Your task to perform on an android device: Clear the cart on ebay.com. Add "energizer triple a" to the cart on ebay.com, then select checkout. Image 0: 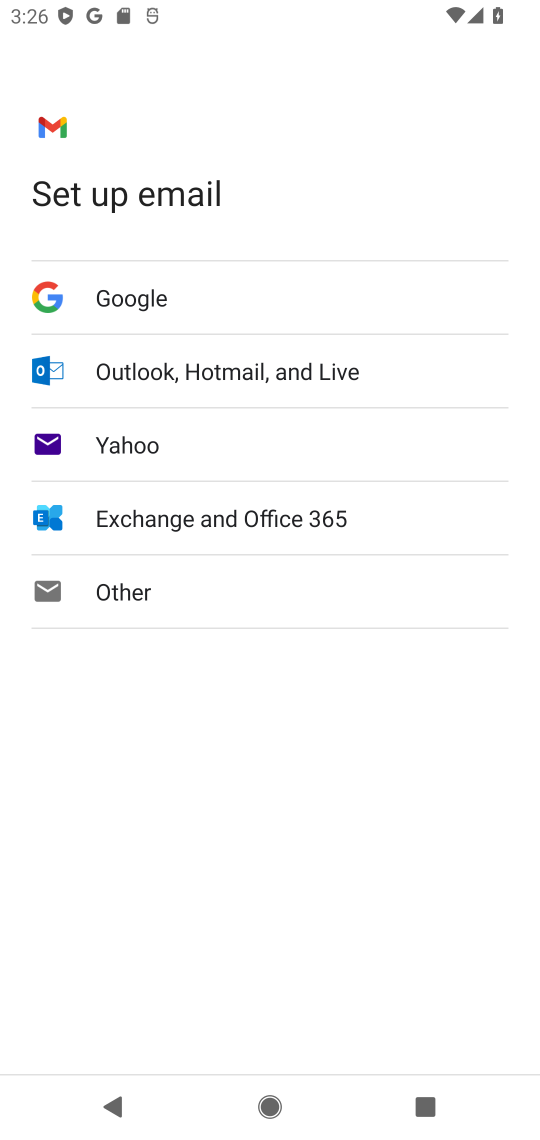
Step 0: press home button
Your task to perform on an android device: Clear the cart on ebay.com. Add "energizer triple a" to the cart on ebay.com, then select checkout. Image 1: 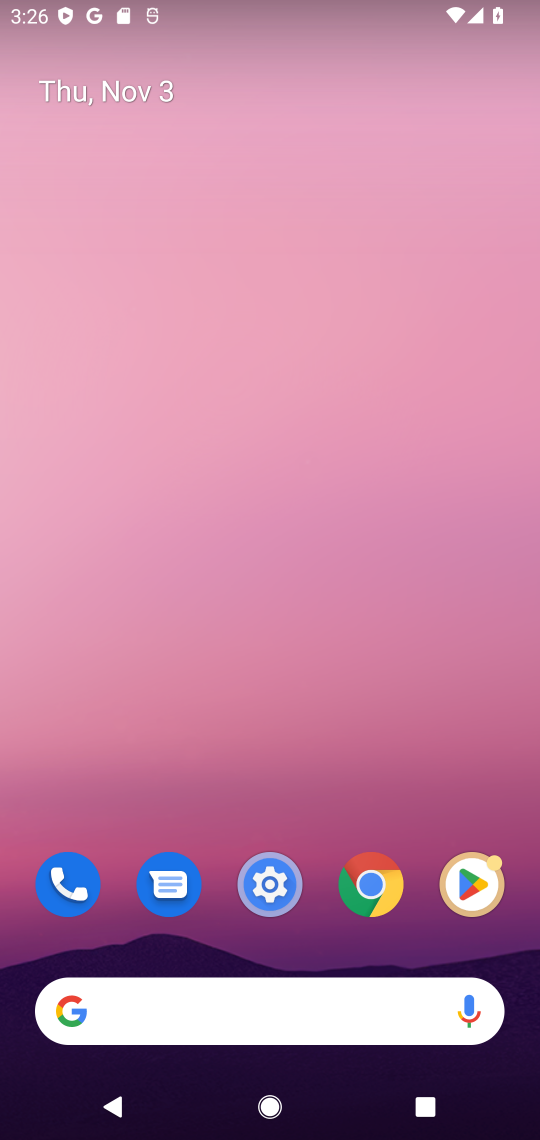
Step 1: click (129, 1004)
Your task to perform on an android device: Clear the cart on ebay.com. Add "energizer triple a" to the cart on ebay.com, then select checkout. Image 2: 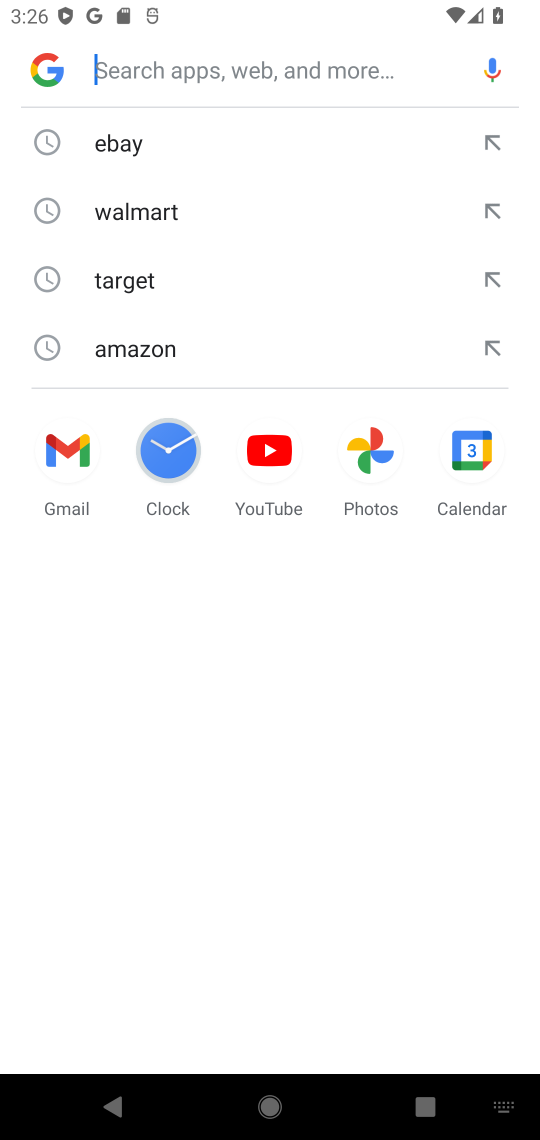
Step 2: type "ebay.com"
Your task to perform on an android device: Clear the cart on ebay.com. Add "energizer triple a" to the cart on ebay.com, then select checkout. Image 3: 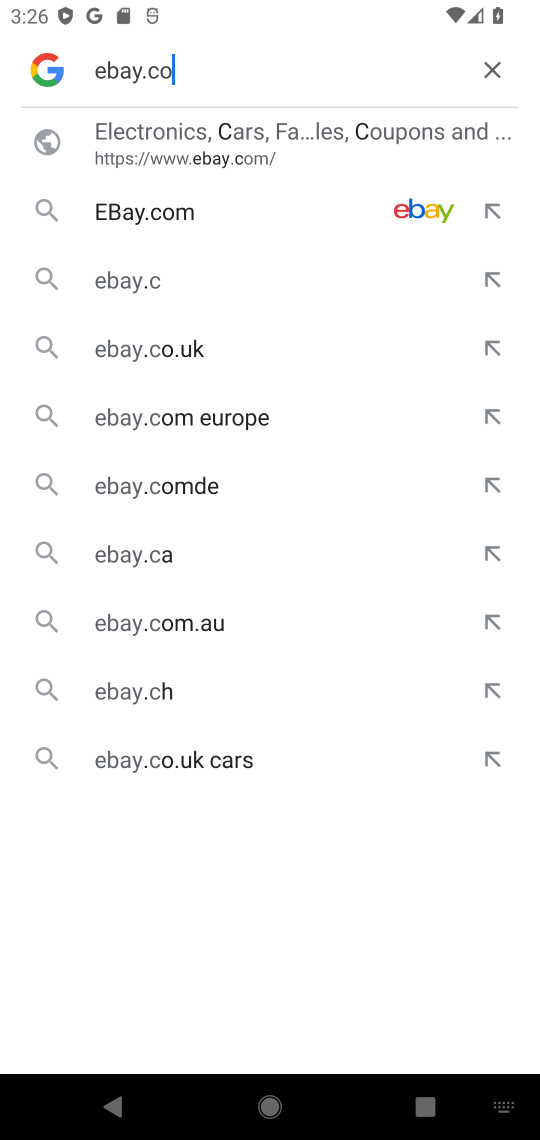
Step 3: press enter
Your task to perform on an android device: Clear the cart on ebay.com. Add "energizer triple a" to the cart on ebay.com, then select checkout. Image 4: 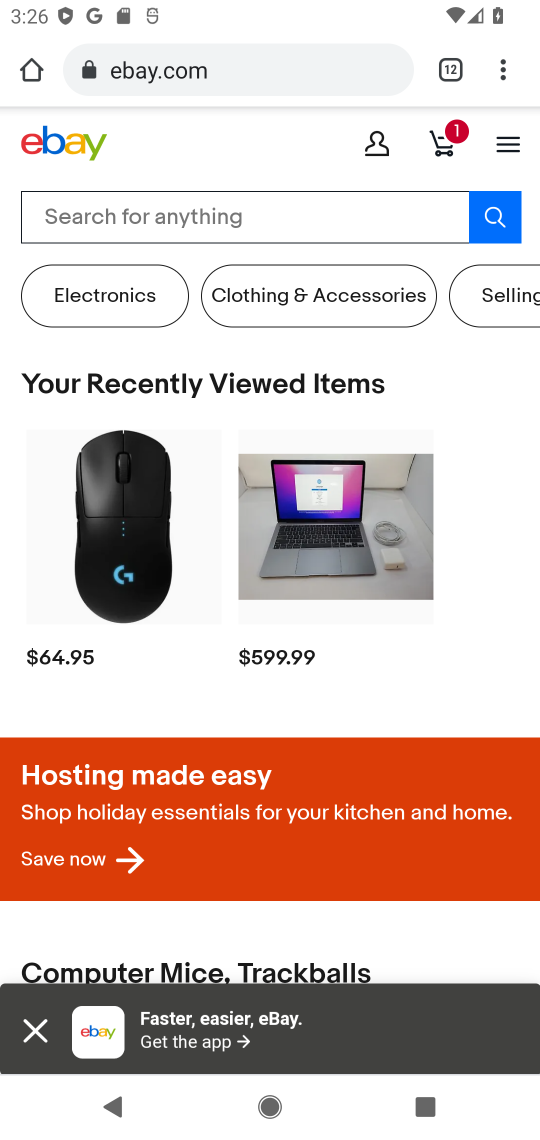
Step 4: click (443, 139)
Your task to perform on an android device: Clear the cart on ebay.com. Add "energizer triple a" to the cart on ebay.com, then select checkout. Image 5: 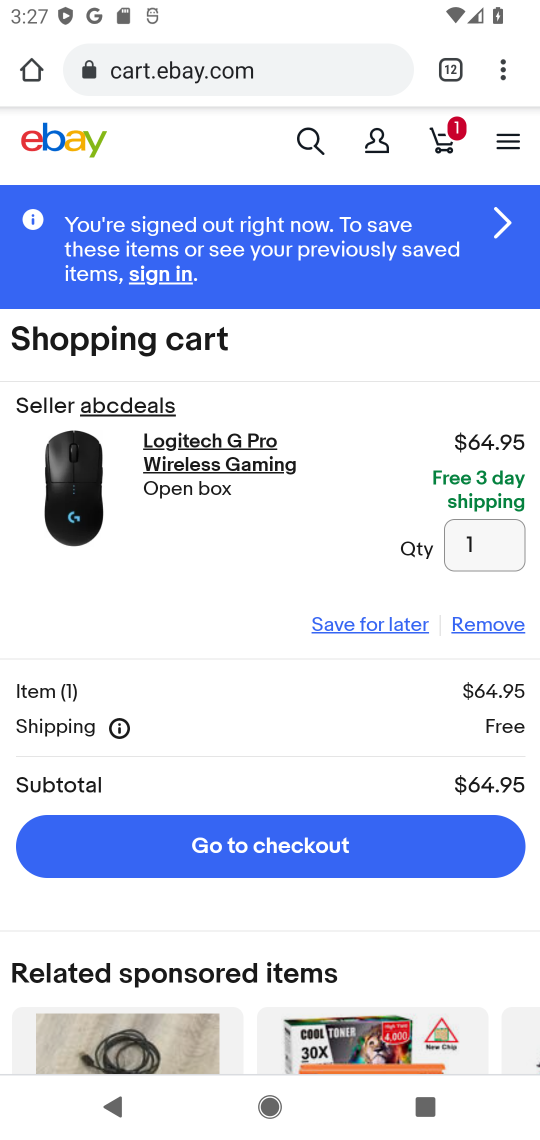
Step 5: click (490, 617)
Your task to perform on an android device: Clear the cart on ebay.com. Add "energizer triple a" to the cart on ebay.com, then select checkout. Image 6: 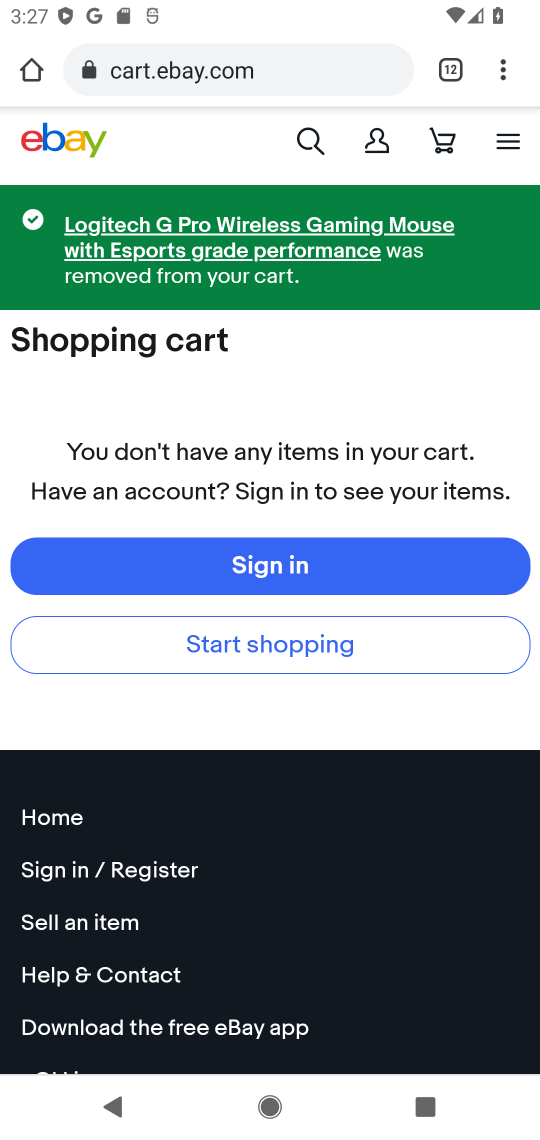
Step 6: click (310, 140)
Your task to perform on an android device: Clear the cart on ebay.com. Add "energizer triple a" to the cart on ebay.com, then select checkout. Image 7: 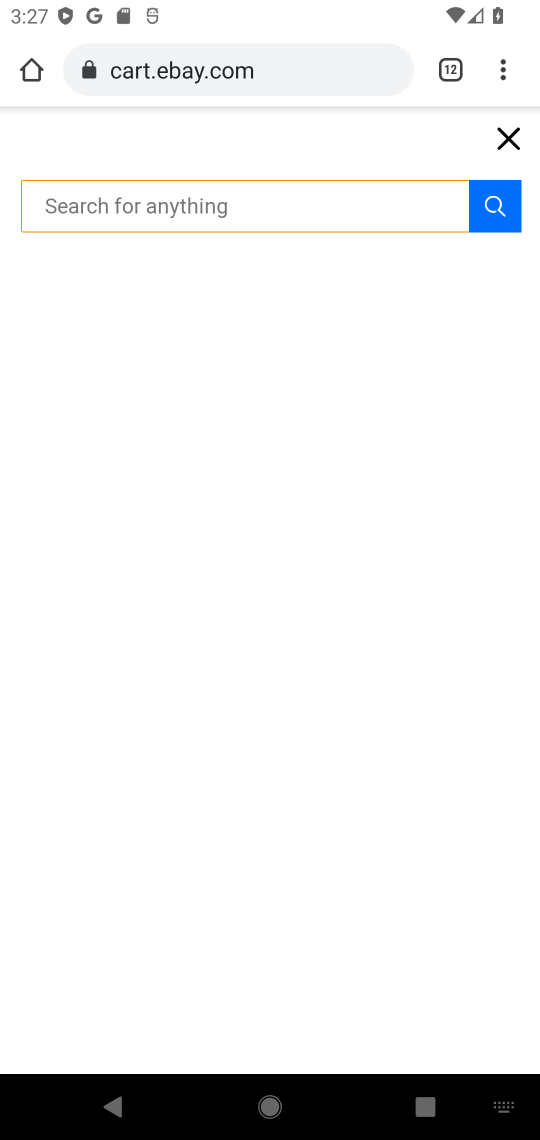
Step 7: type "energizer triple a"
Your task to perform on an android device: Clear the cart on ebay.com. Add "energizer triple a" to the cart on ebay.com, then select checkout. Image 8: 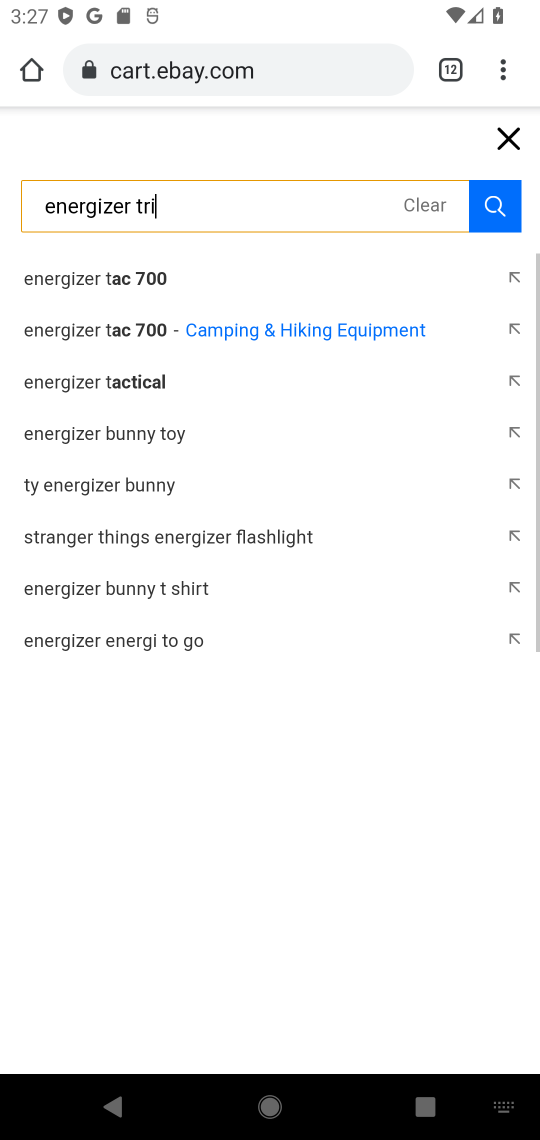
Step 8: press enter
Your task to perform on an android device: Clear the cart on ebay.com. Add "energizer triple a" to the cart on ebay.com, then select checkout. Image 9: 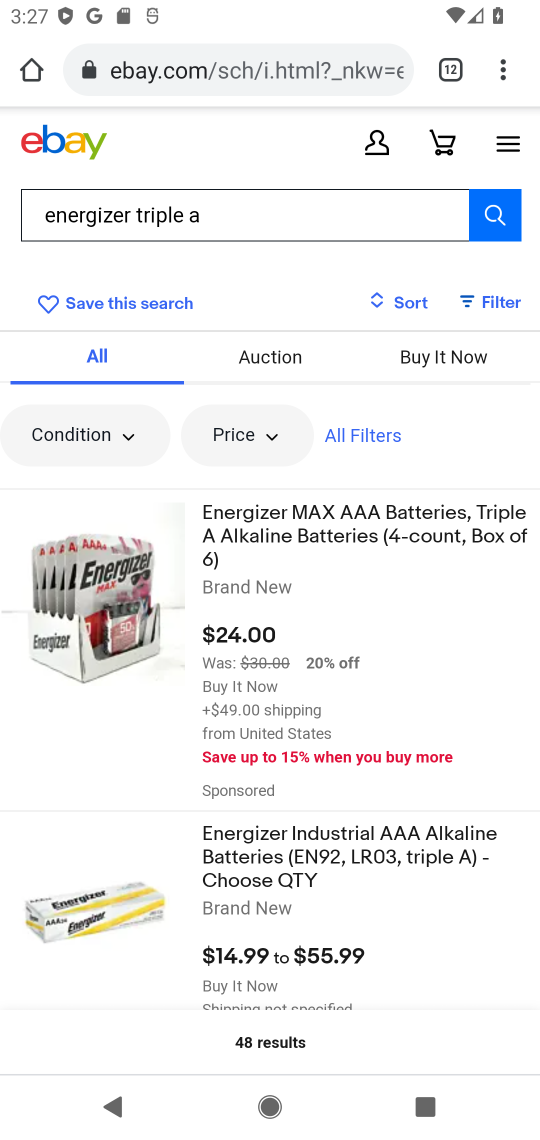
Step 9: click (293, 518)
Your task to perform on an android device: Clear the cart on ebay.com. Add "energizer triple a" to the cart on ebay.com, then select checkout. Image 10: 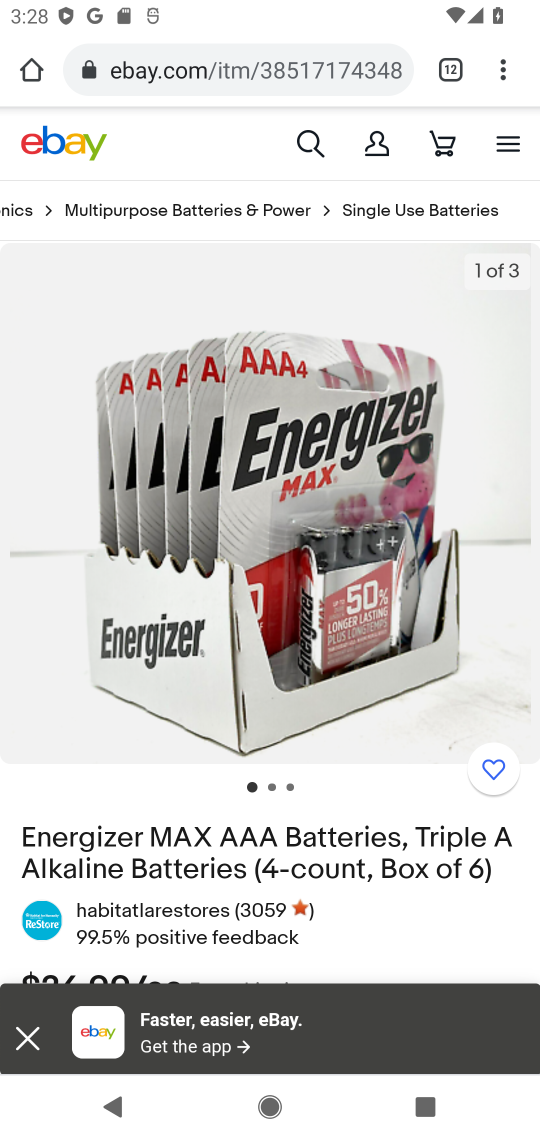
Step 10: drag from (345, 865) to (350, 526)
Your task to perform on an android device: Clear the cart on ebay.com. Add "energizer triple a" to the cart on ebay.com, then select checkout. Image 11: 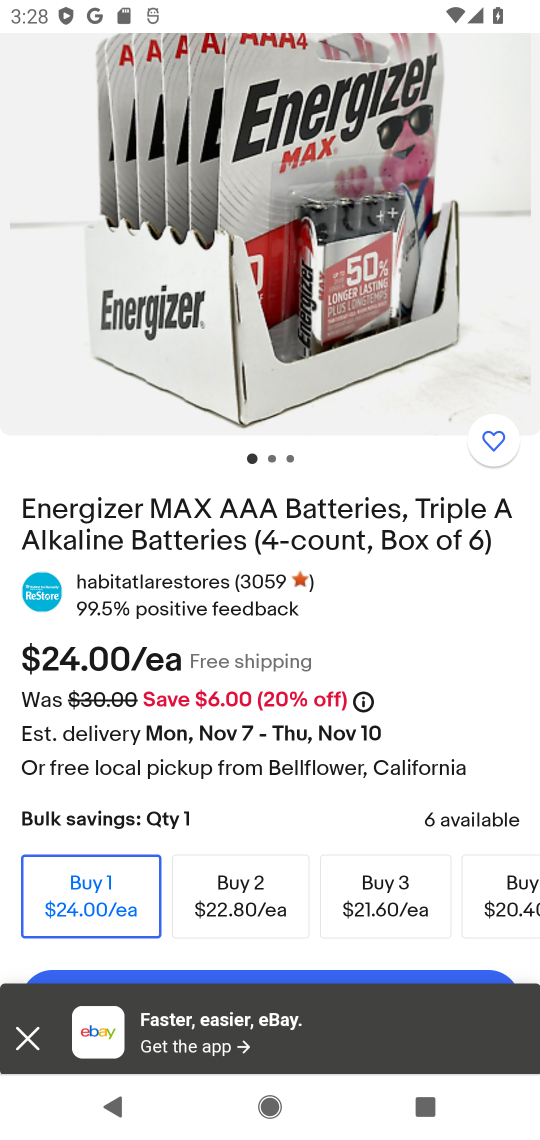
Step 11: drag from (320, 776) to (330, 432)
Your task to perform on an android device: Clear the cart on ebay.com. Add "energizer triple a" to the cart on ebay.com, then select checkout. Image 12: 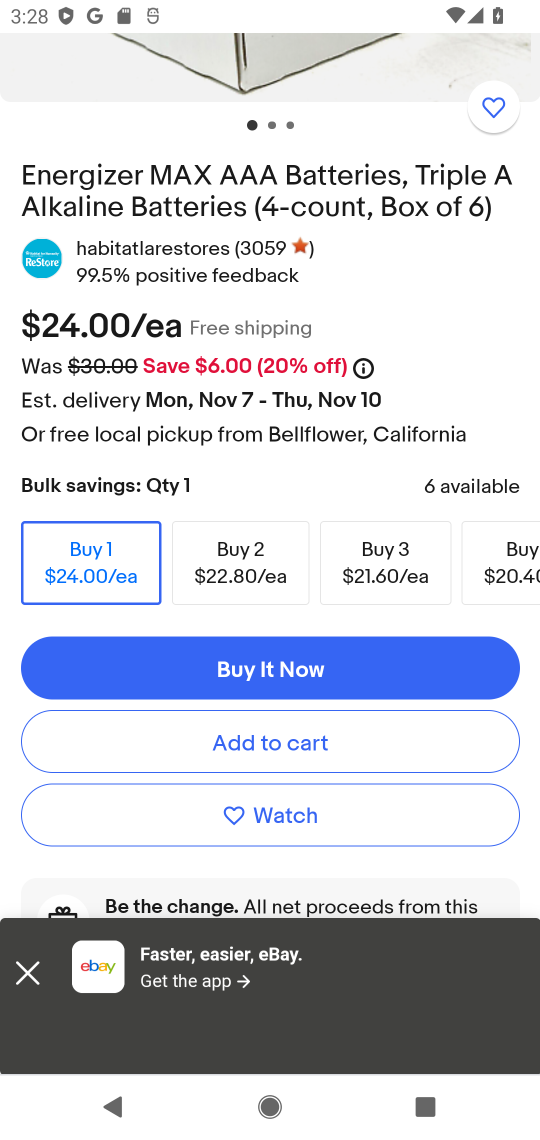
Step 12: click (243, 743)
Your task to perform on an android device: Clear the cart on ebay.com. Add "energizer triple a" to the cart on ebay.com, then select checkout. Image 13: 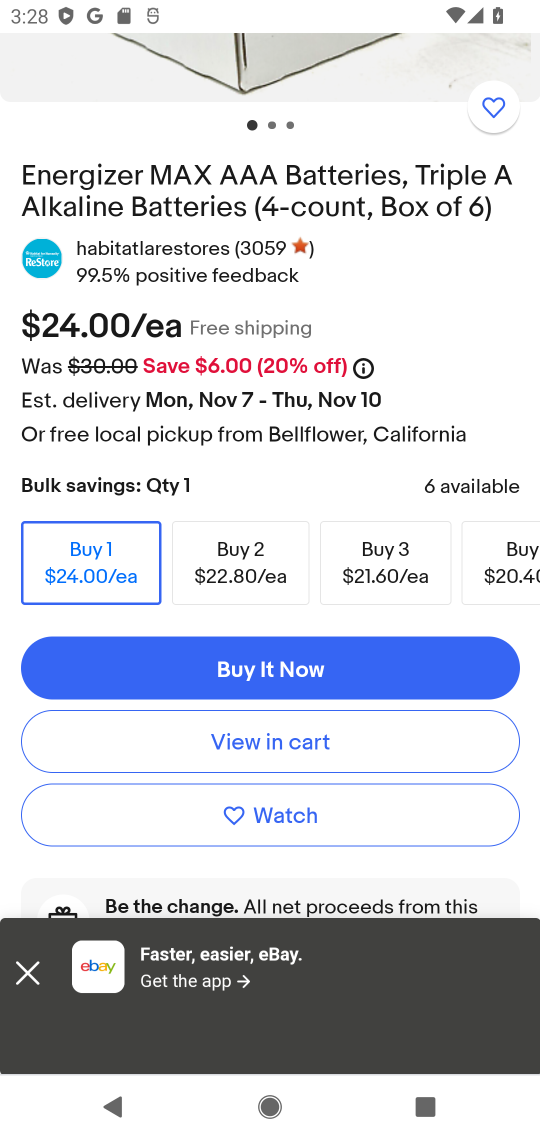
Step 13: click (243, 743)
Your task to perform on an android device: Clear the cart on ebay.com. Add "energizer triple a" to the cart on ebay.com, then select checkout. Image 14: 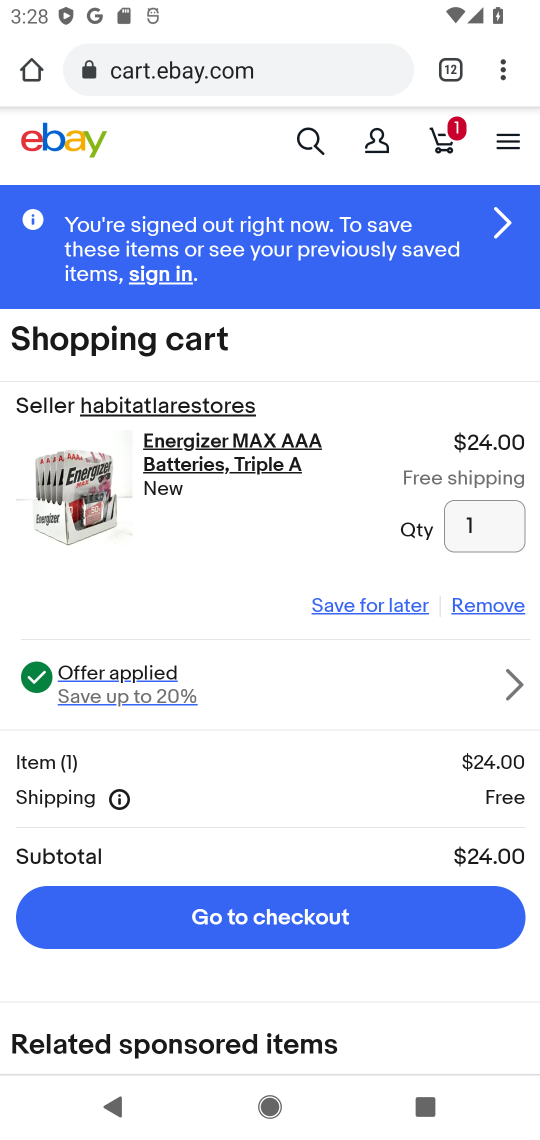
Step 14: click (238, 922)
Your task to perform on an android device: Clear the cart on ebay.com. Add "energizer triple a" to the cart on ebay.com, then select checkout. Image 15: 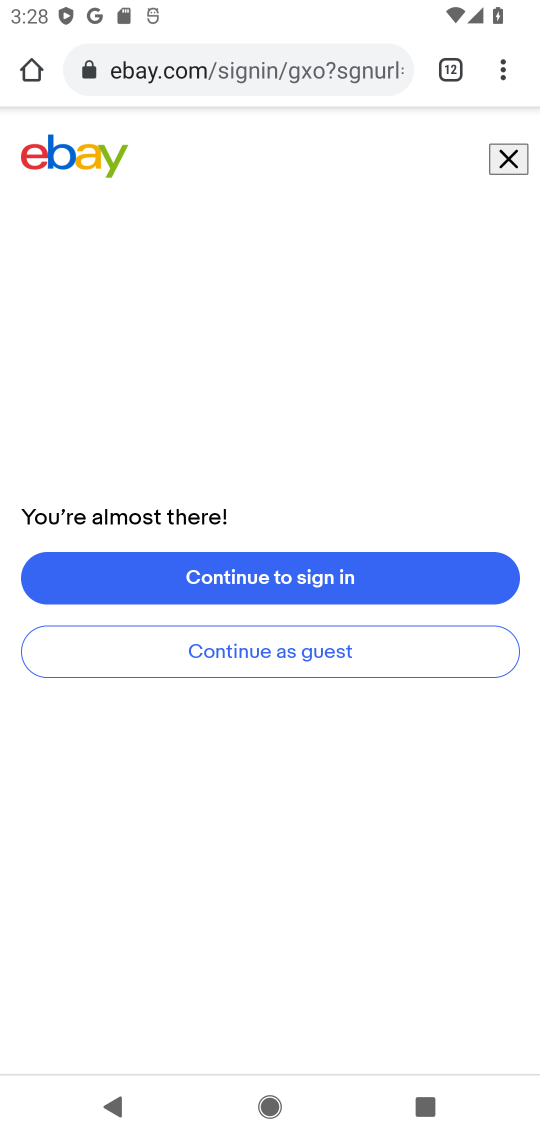
Step 15: task complete